Your task to perform on an android device: change the clock display to digital Image 0: 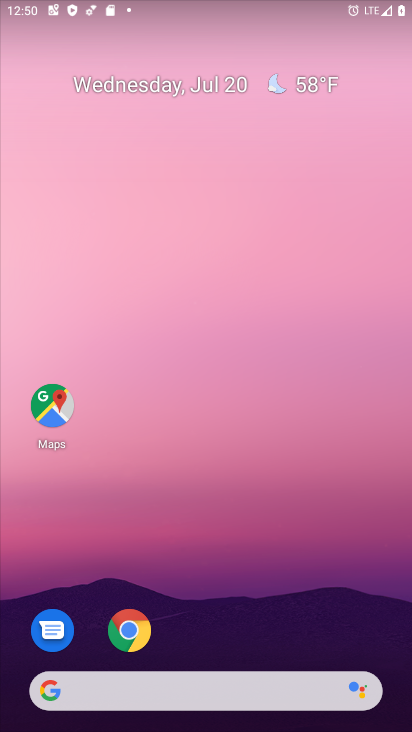
Step 0: drag from (229, 652) to (234, 12)
Your task to perform on an android device: change the clock display to digital Image 1: 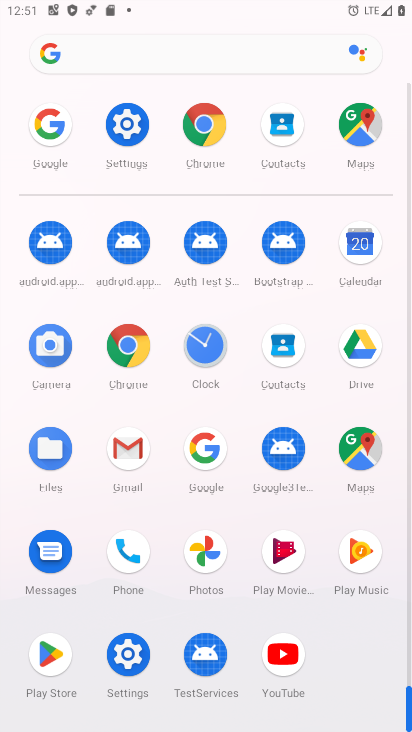
Step 1: click (217, 357)
Your task to perform on an android device: change the clock display to digital Image 2: 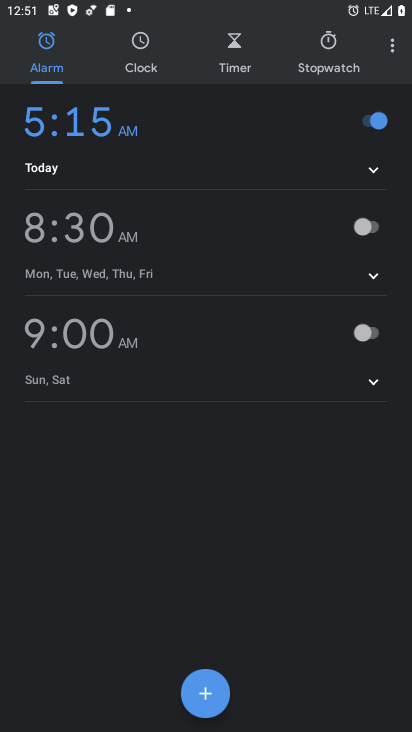
Step 2: click (395, 55)
Your task to perform on an android device: change the clock display to digital Image 3: 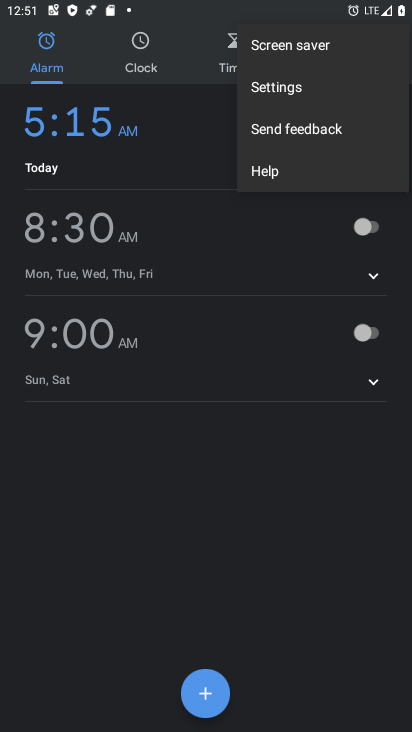
Step 3: click (302, 91)
Your task to perform on an android device: change the clock display to digital Image 4: 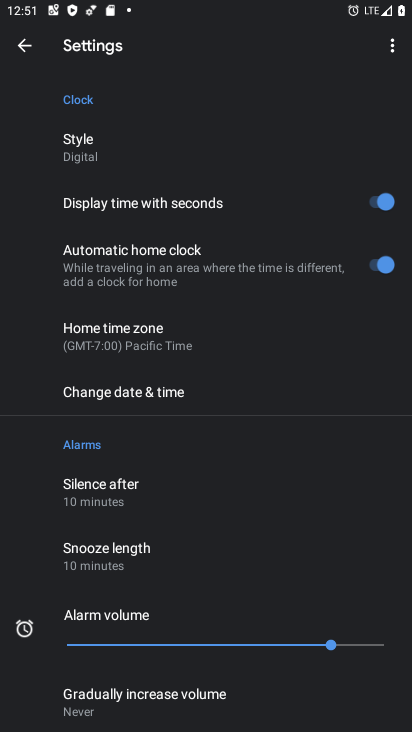
Step 4: task complete